Your task to perform on an android device: Go to sound settings Image 0: 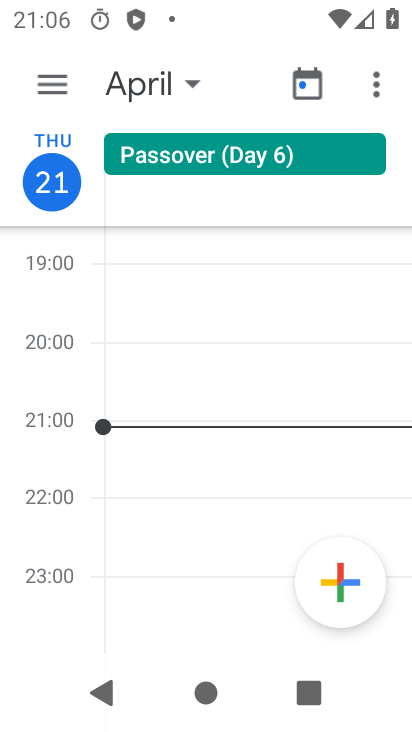
Step 0: press home button
Your task to perform on an android device: Go to sound settings Image 1: 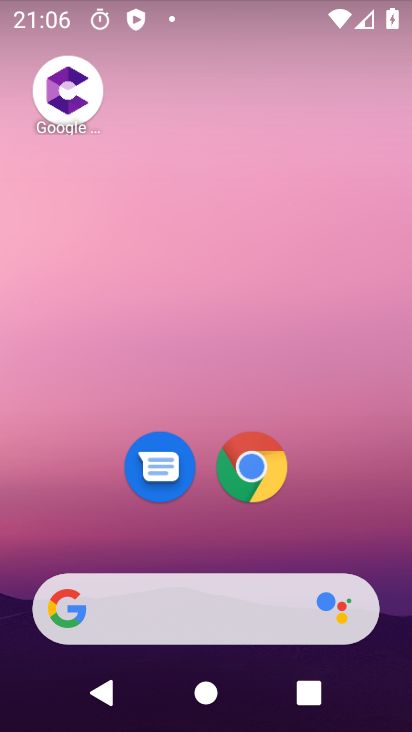
Step 1: drag from (220, 570) to (321, 654)
Your task to perform on an android device: Go to sound settings Image 2: 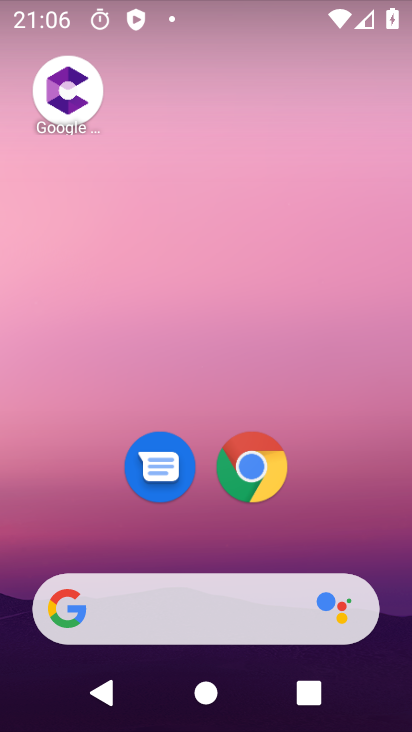
Step 2: click (84, 179)
Your task to perform on an android device: Go to sound settings Image 3: 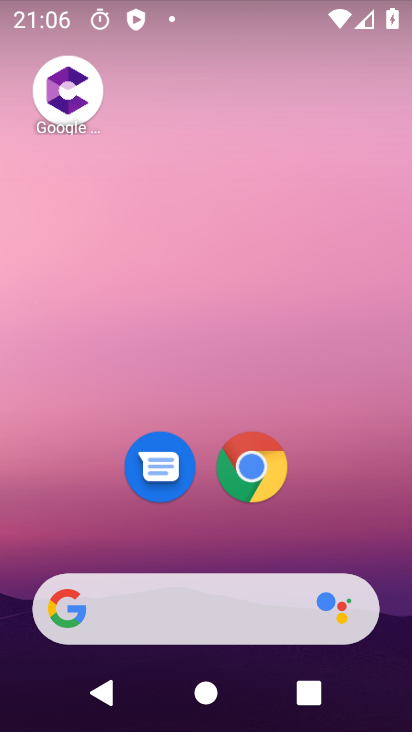
Step 3: drag from (259, 571) to (374, 632)
Your task to perform on an android device: Go to sound settings Image 4: 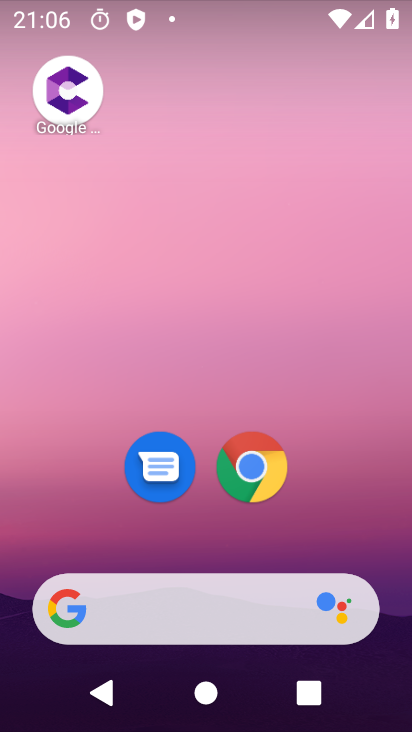
Step 4: click (49, 189)
Your task to perform on an android device: Go to sound settings Image 5: 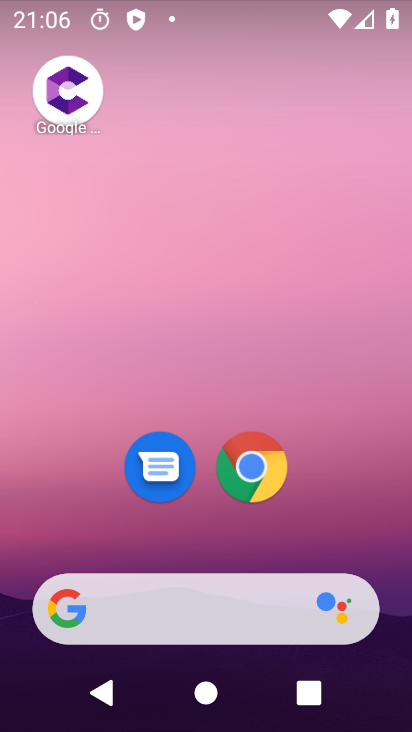
Step 5: drag from (227, 589) to (402, 137)
Your task to perform on an android device: Go to sound settings Image 6: 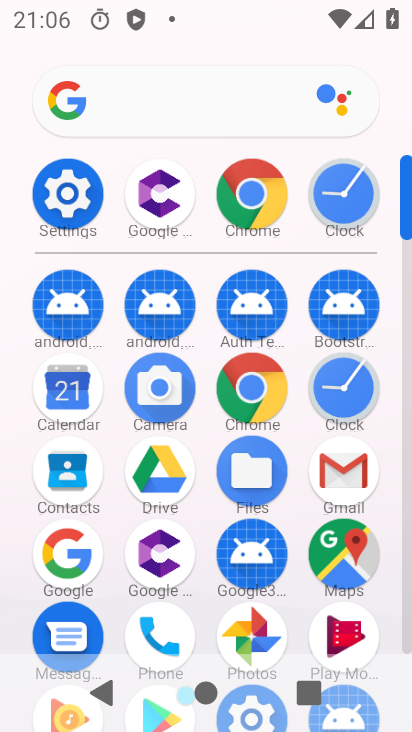
Step 6: click (51, 184)
Your task to perform on an android device: Go to sound settings Image 7: 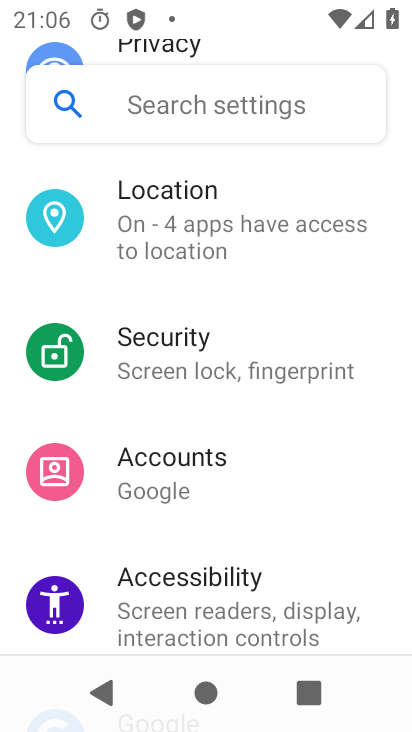
Step 7: drag from (205, 248) to (169, 680)
Your task to perform on an android device: Go to sound settings Image 8: 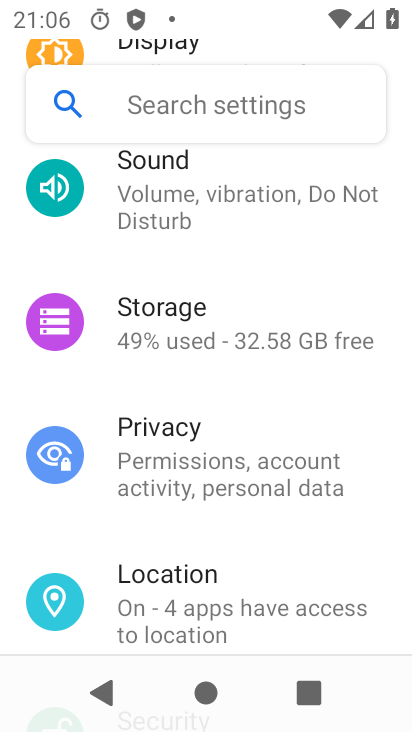
Step 8: click (189, 196)
Your task to perform on an android device: Go to sound settings Image 9: 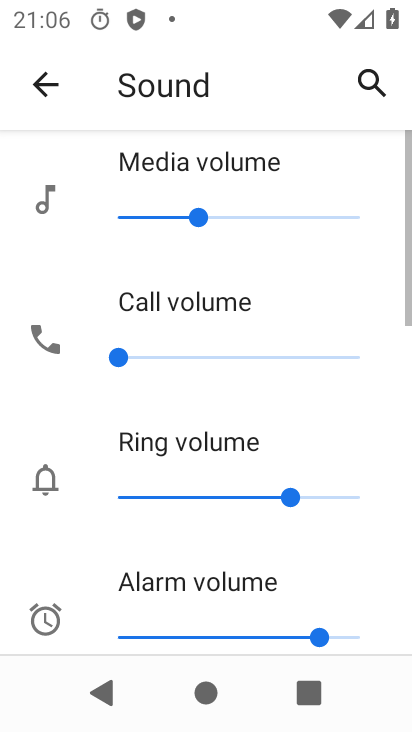
Step 9: task complete